Your task to perform on an android device: What is the news today? Image 0: 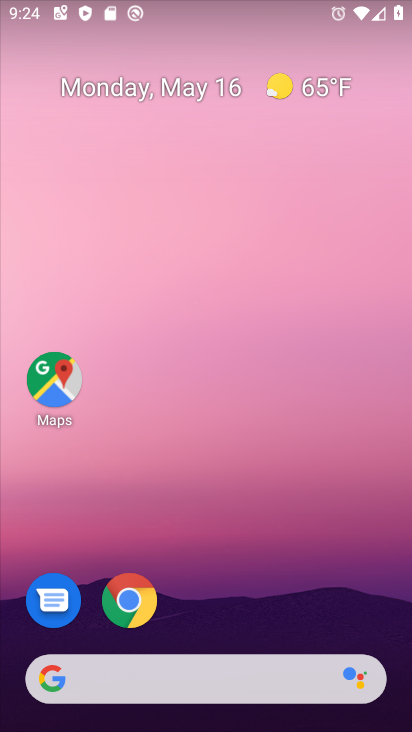
Step 0: drag from (202, 645) to (232, 105)
Your task to perform on an android device: What is the news today? Image 1: 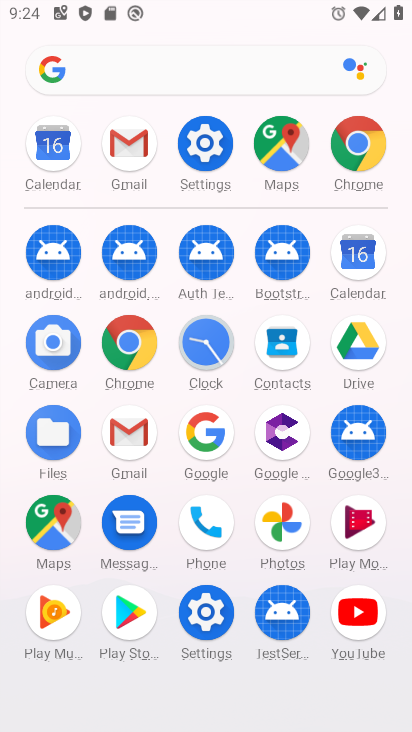
Step 1: click (180, 67)
Your task to perform on an android device: What is the news today? Image 2: 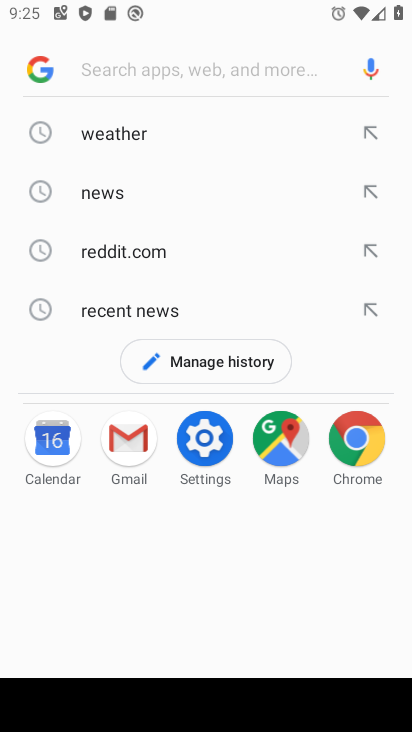
Step 2: type "news today"
Your task to perform on an android device: What is the news today? Image 3: 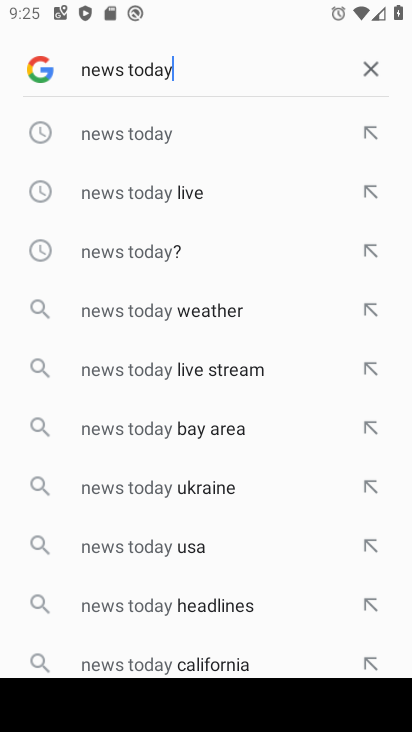
Step 3: click (152, 146)
Your task to perform on an android device: What is the news today? Image 4: 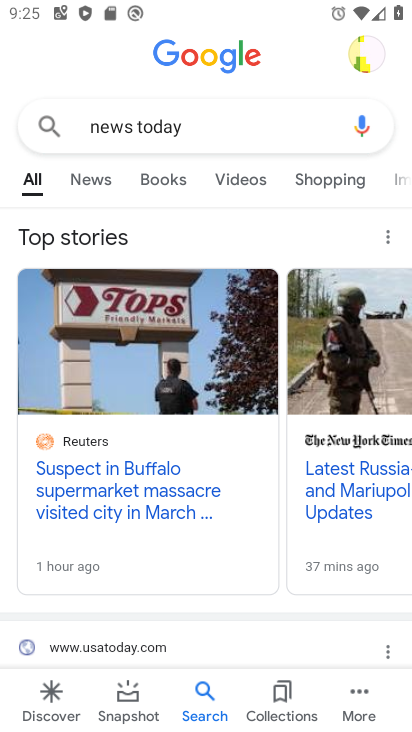
Step 4: task complete